Your task to perform on an android device: Open Yahoo.com Image 0: 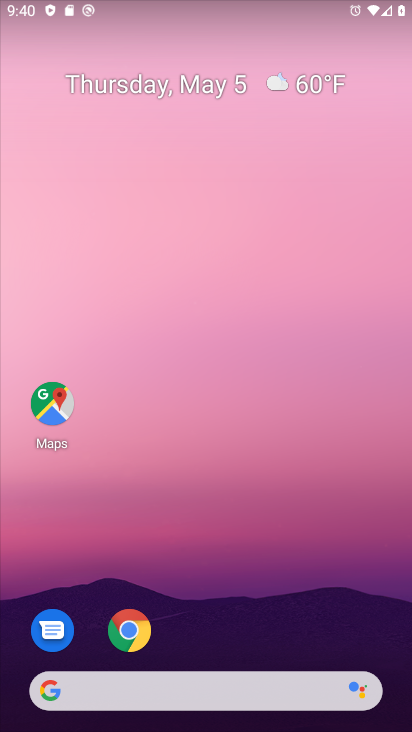
Step 0: click (127, 644)
Your task to perform on an android device: Open Yahoo.com Image 1: 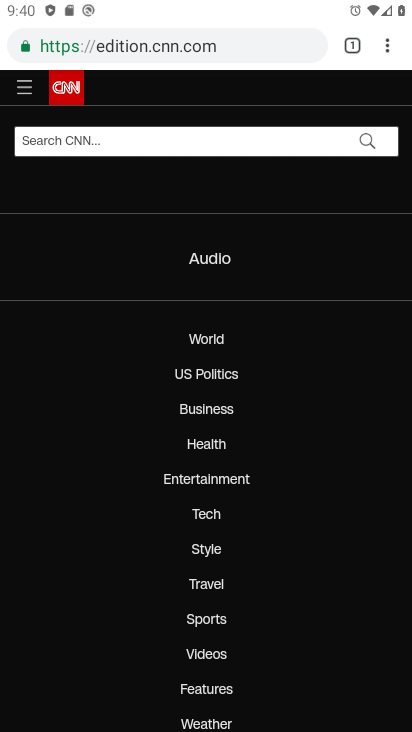
Step 1: click (197, 39)
Your task to perform on an android device: Open Yahoo.com Image 2: 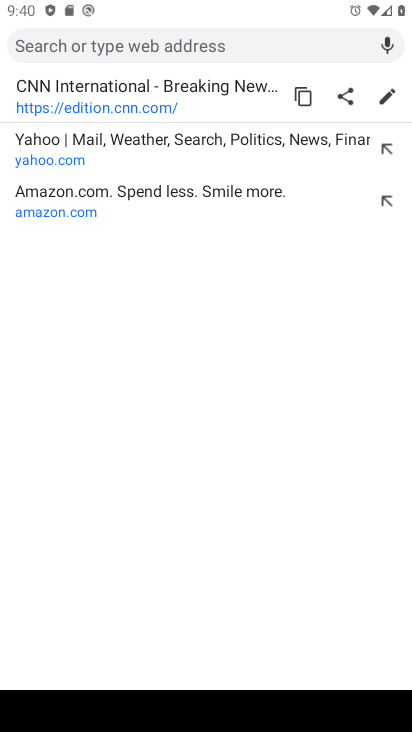
Step 2: click (159, 159)
Your task to perform on an android device: Open Yahoo.com Image 3: 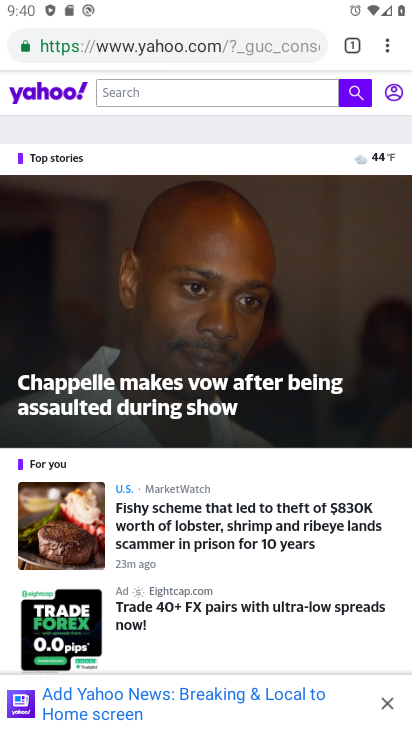
Step 3: task complete